Your task to perform on an android device: check out phone information Image 0: 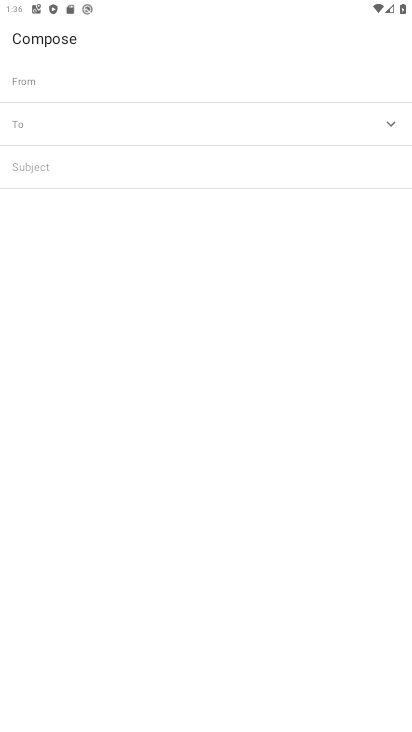
Step 0: drag from (285, 566) to (399, 552)
Your task to perform on an android device: check out phone information Image 1: 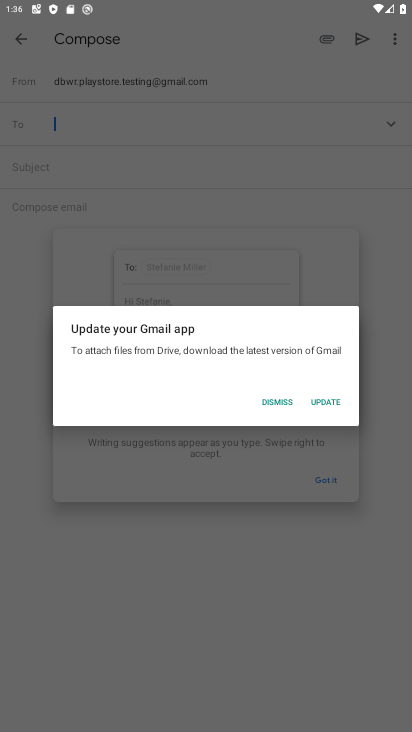
Step 1: press home button
Your task to perform on an android device: check out phone information Image 2: 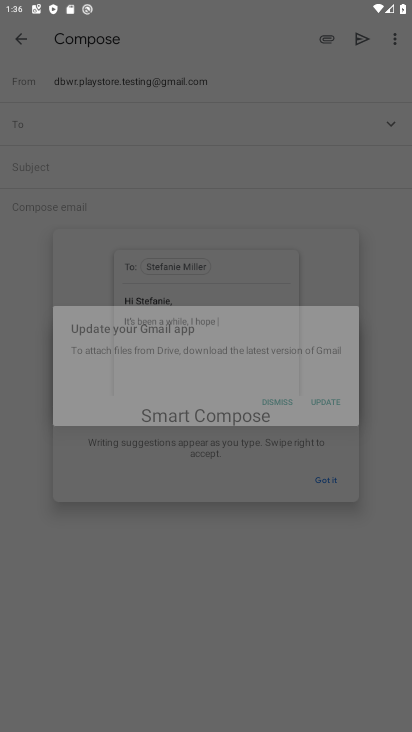
Step 2: drag from (399, 552) to (408, 605)
Your task to perform on an android device: check out phone information Image 3: 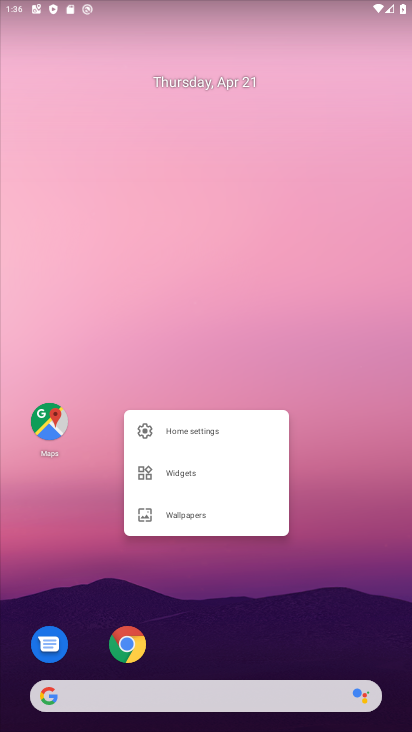
Step 3: drag from (384, 626) to (299, 191)
Your task to perform on an android device: check out phone information Image 4: 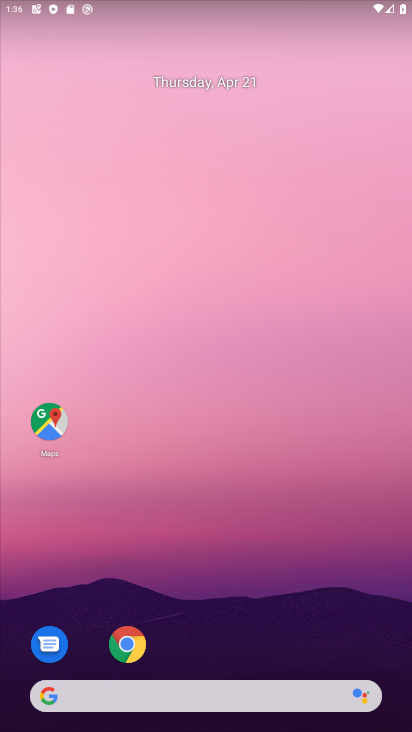
Step 4: drag from (229, 631) to (256, 68)
Your task to perform on an android device: check out phone information Image 5: 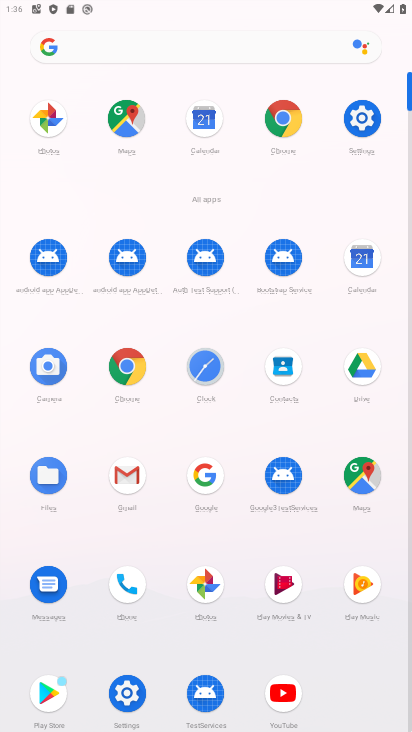
Step 5: click (368, 119)
Your task to perform on an android device: check out phone information Image 6: 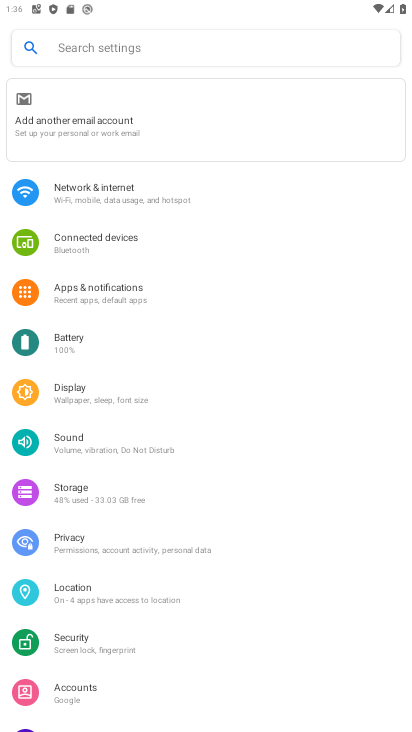
Step 6: drag from (270, 553) to (228, 12)
Your task to perform on an android device: check out phone information Image 7: 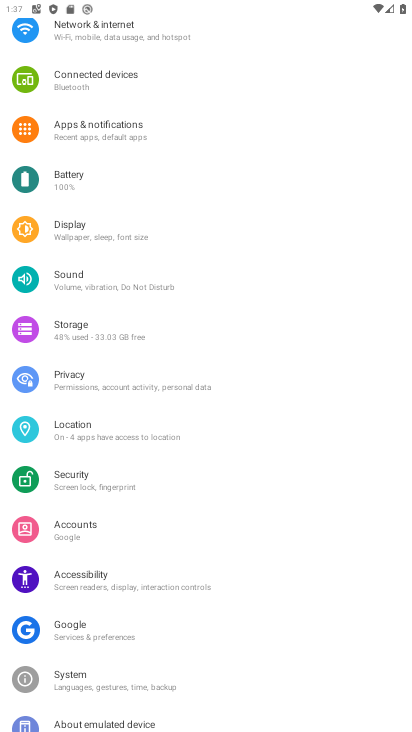
Step 7: click (247, 717)
Your task to perform on an android device: check out phone information Image 8: 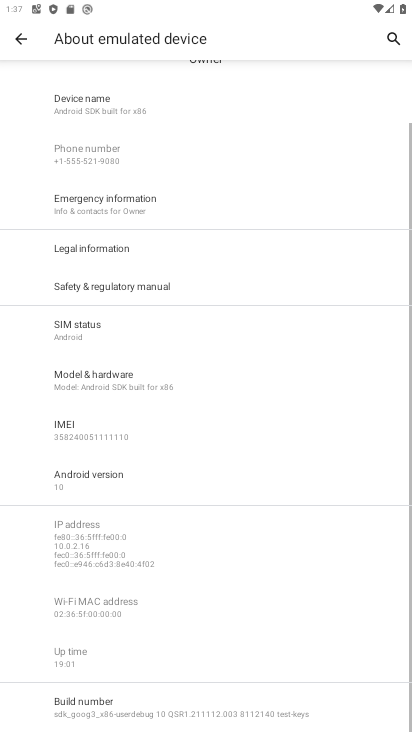
Step 8: task complete